Your task to perform on an android device: turn off javascript in the chrome app Image 0: 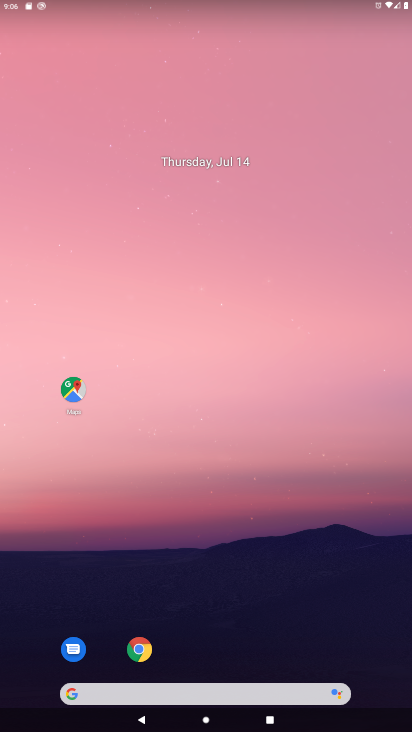
Step 0: click (137, 650)
Your task to perform on an android device: turn off javascript in the chrome app Image 1: 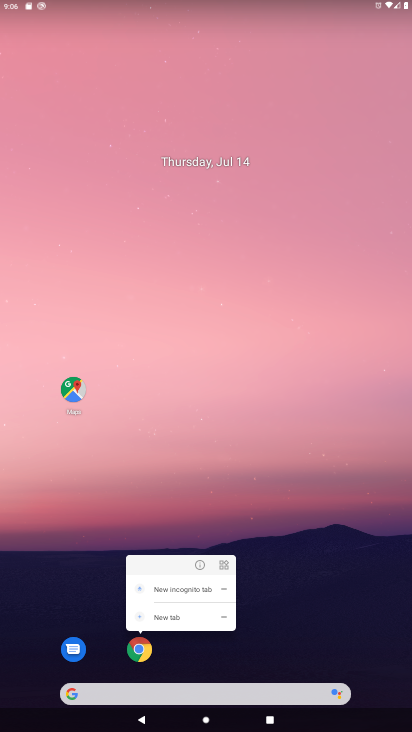
Step 1: click (149, 647)
Your task to perform on an android device: turn off javascript in the chrome app Image 2: 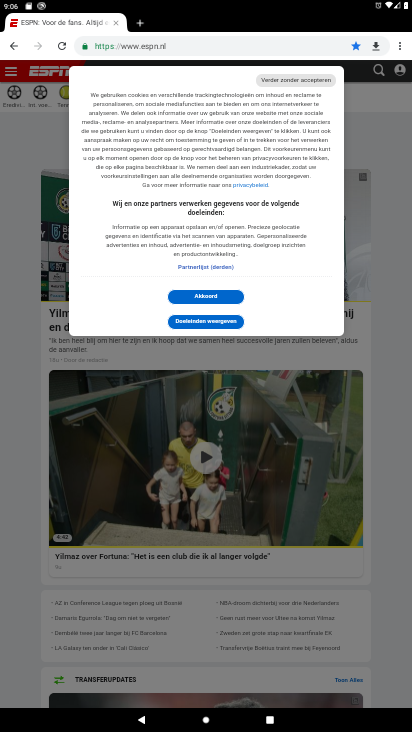
Step 2: click (400, 40)
Your task to perform on an android device: turn off javascript in the chrome app Image 3: 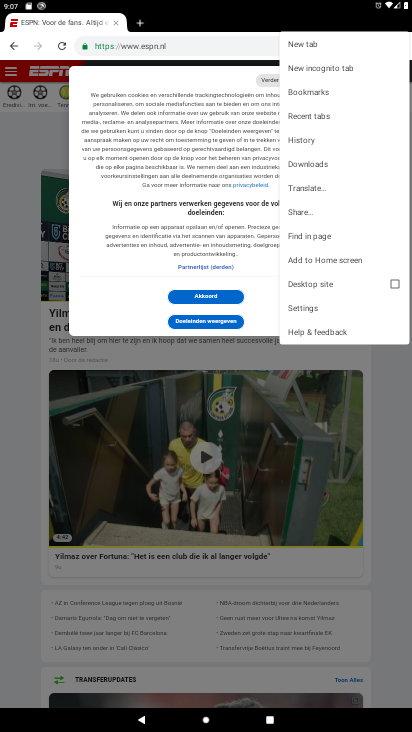
Step 3: click (312, 306)
Your task to perform on an android device: turn off javascript in the chrome app Image 4: 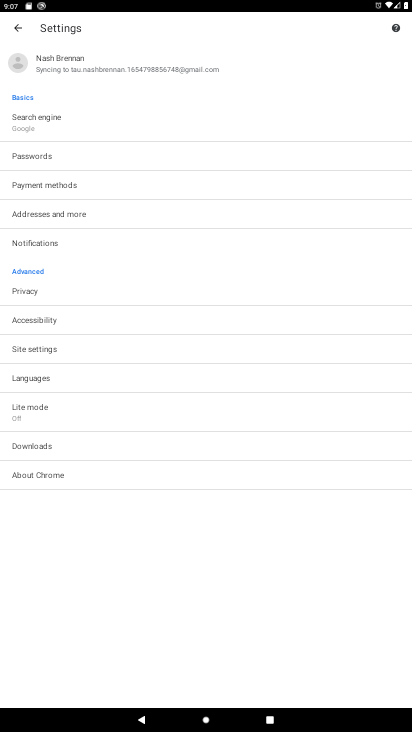
Step 4: click (44, 348)
Your task to perform on an android device: turn off javascript in the chrome app Image 5: 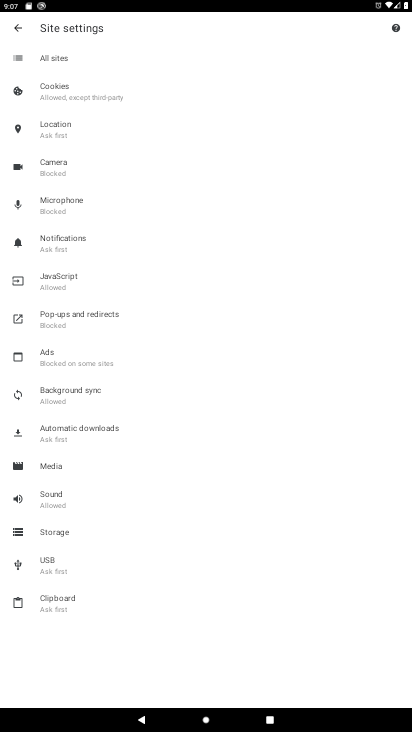
Step 5: click (74, 285)
Your task to perform on an android device: turn off javascript in the chrome app Image 6: 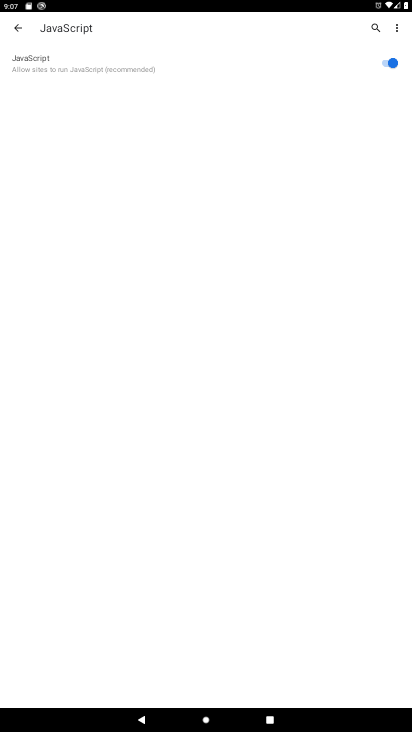
Step 6: click (374, 63)
Your task to perform on an android device: turn off javascript in the chrome app Image 7: 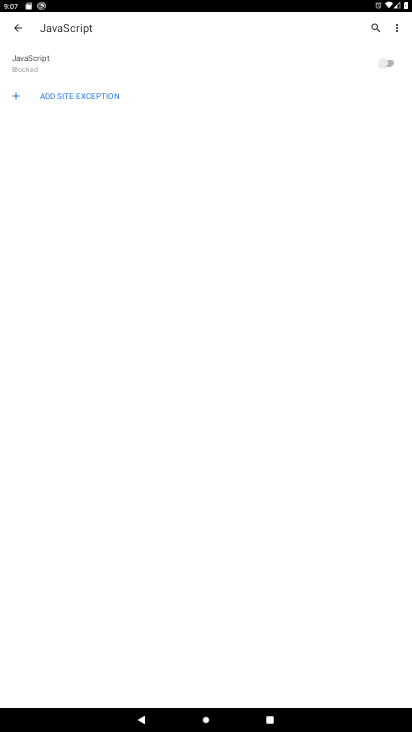
Step 7: task complete